Your task to perform on an android device: move a message to another label in the gmail app Image 0: 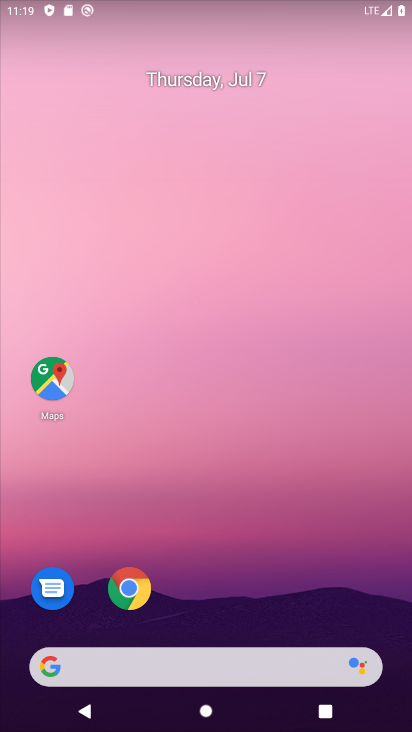
Step 0: drag from (256, 548) to (290, 7)
Your task to perform on an android device: move a message to another label in the gmail app Image 1: 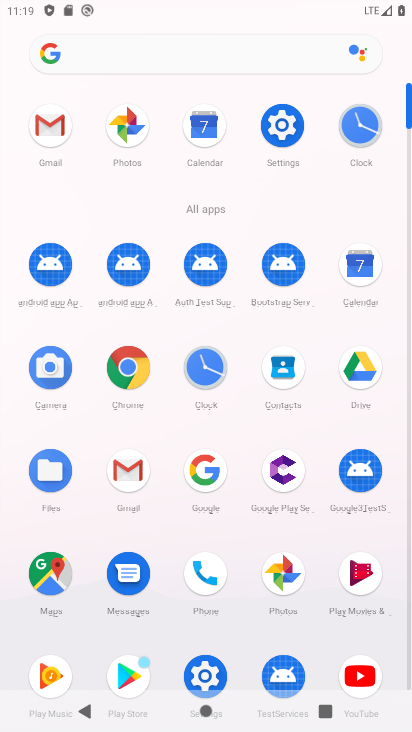
Step 1: click (46, 137)
Your task to perform on an android device: move a message to another label in the gmail app Image 2: 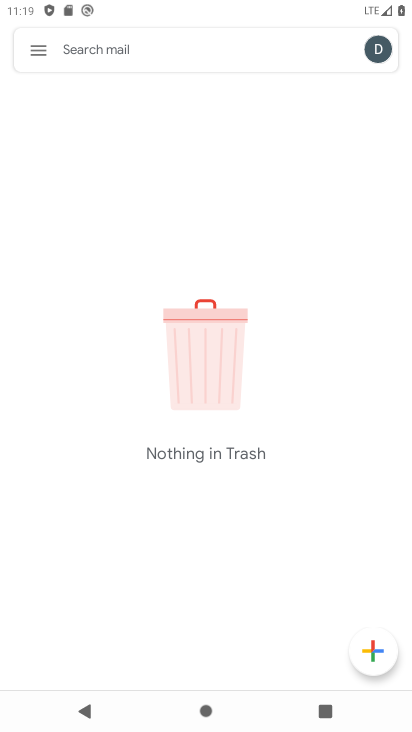
Step 2: click (33, 48)
Your task to perform on an android device: move a message to another label in the gmail app Image 3: 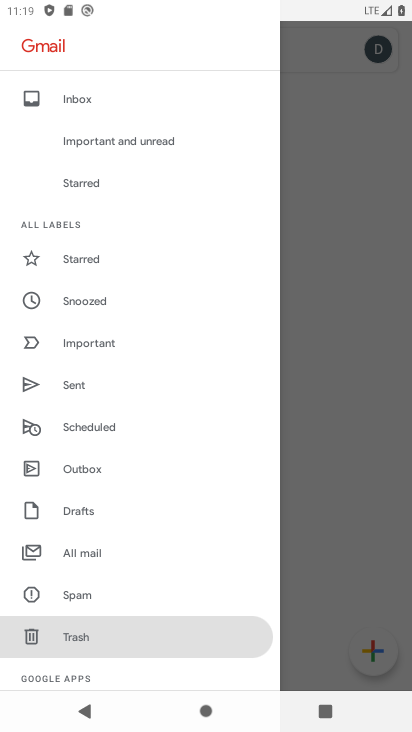
Step 3: click (95, 558)
Your task to perform on an android device: move a message to another label in the gmail app Image 4: 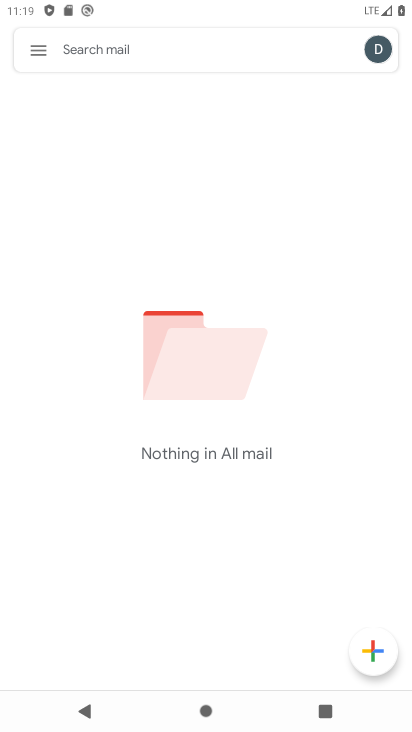
Step 4: task complete